Your task to perform on an android device: Search for "bose soundsport free" on costco.com, select the first entry, and add it to the cart. Image 0: 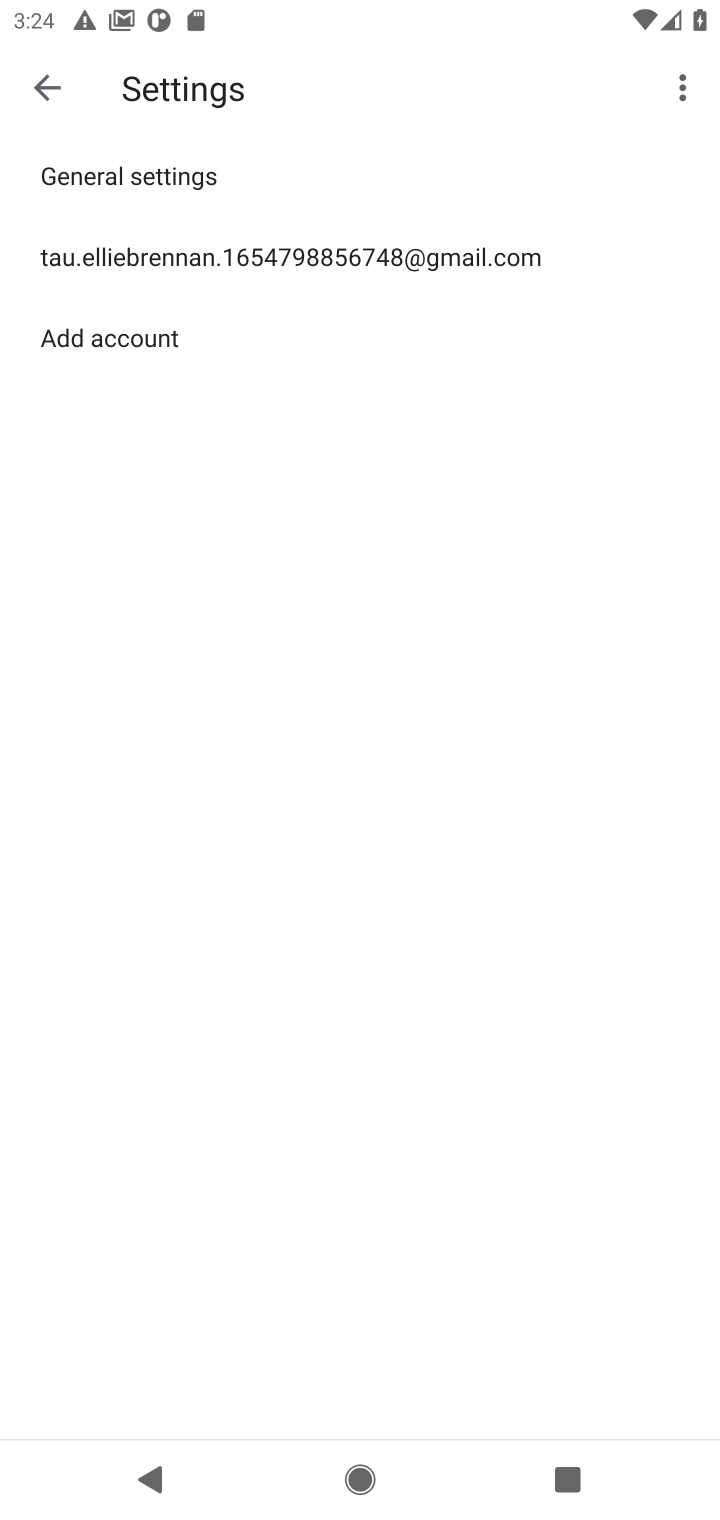
Step 0: press home button
Your task to perform on an android device: Search for "bose soundsport free" on costco.com, select the first entry, and add it to the cart. Image 1: 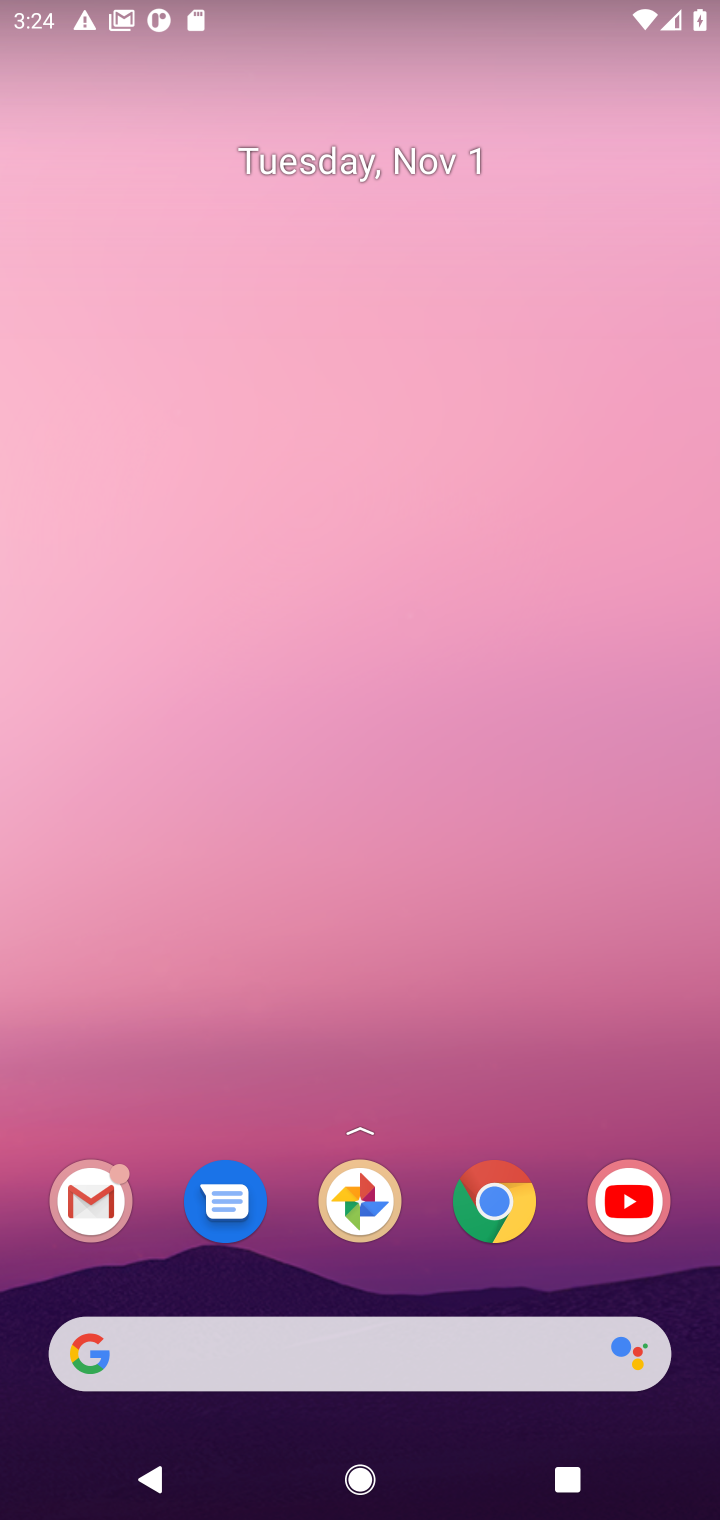
Step 1: click (280, 135)
Your task to perform on an android device: Search for "bose soundsport free" on costco.com, select the first entry, and add it to the cart. Image 2: 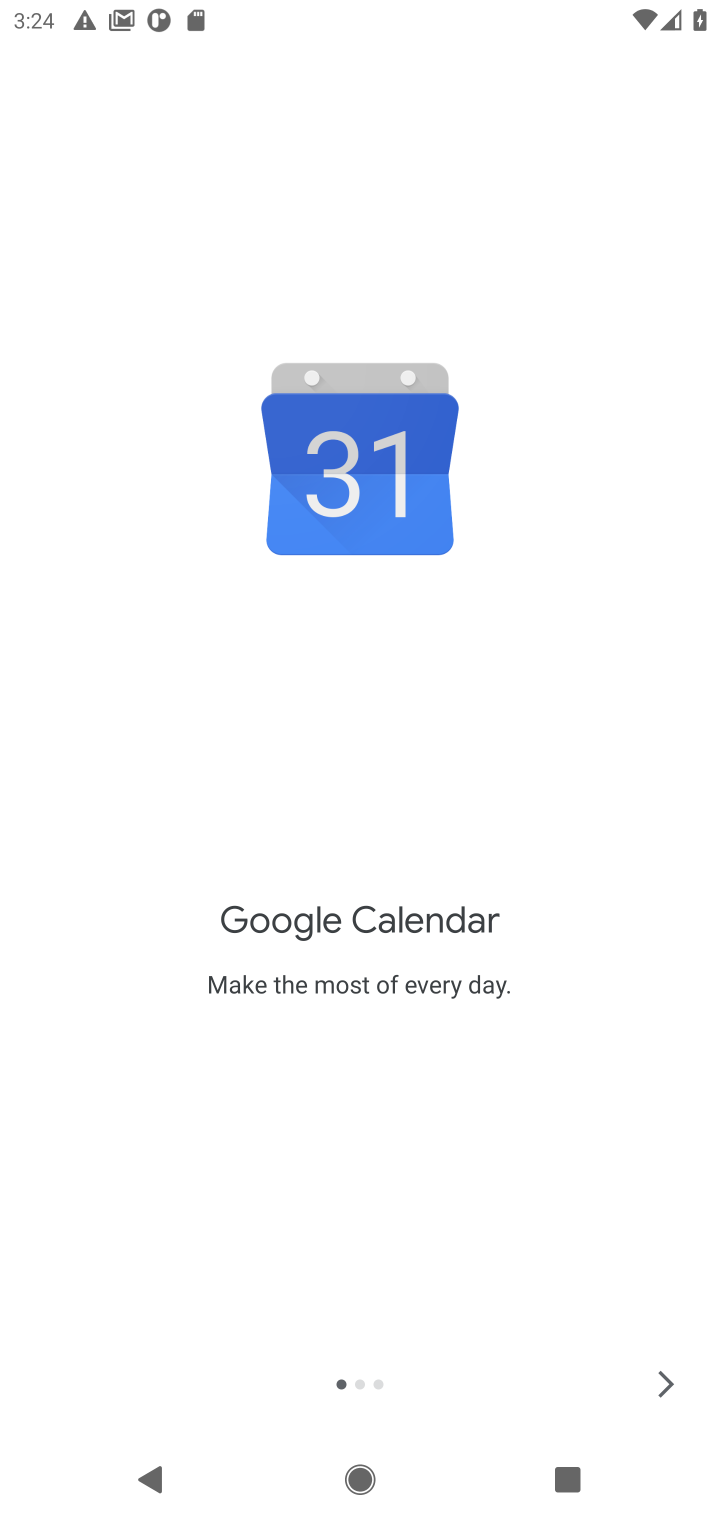
Step 2: press home button
Your task to perform on an android device: Search for "bose soundsport free" on costco.com, select the first entry, and add it to the cart. Image 3: 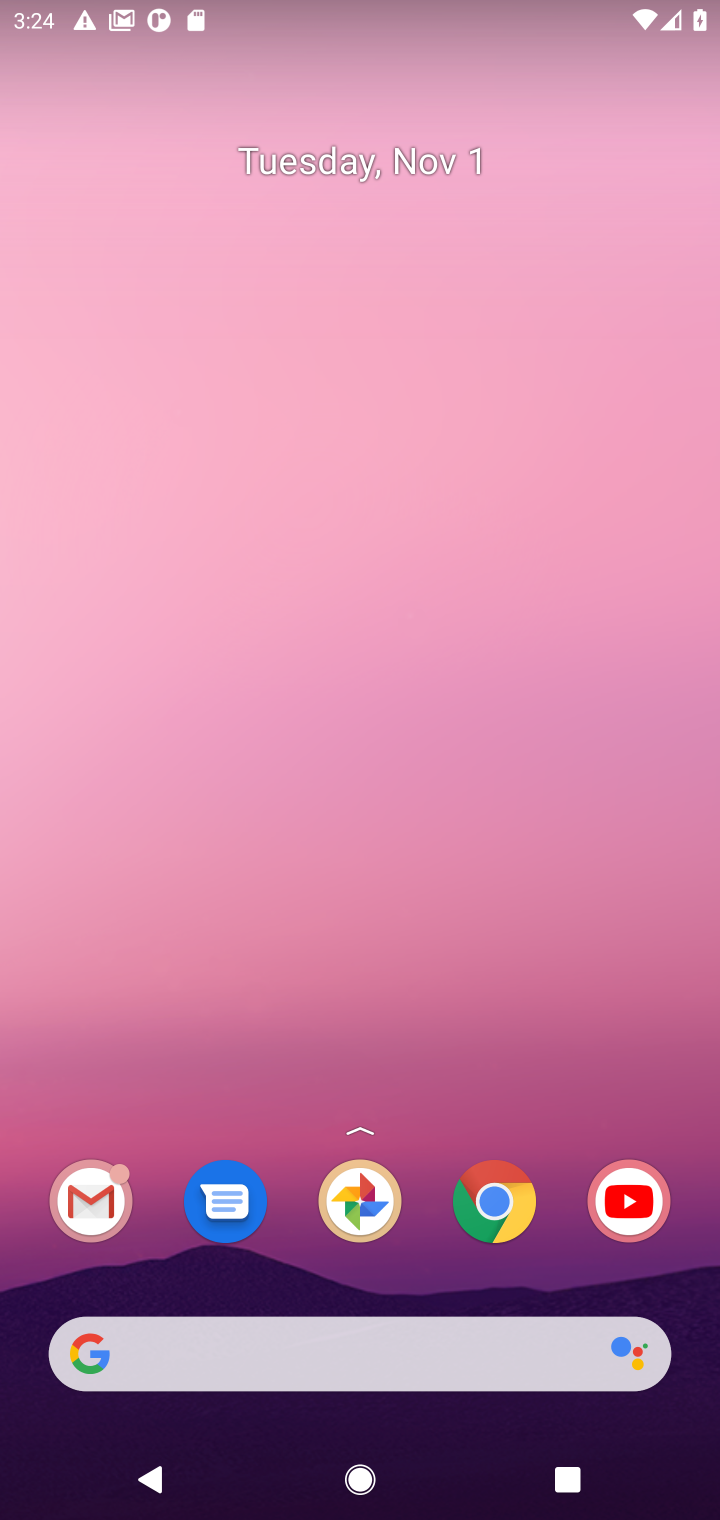
Step 3: drag from (270, 1292) to (291, 666)
Your task to perform on an android device: Search for "bose soundsport free" on costco.com, select the first entry, and add it to the cart. Image 4: 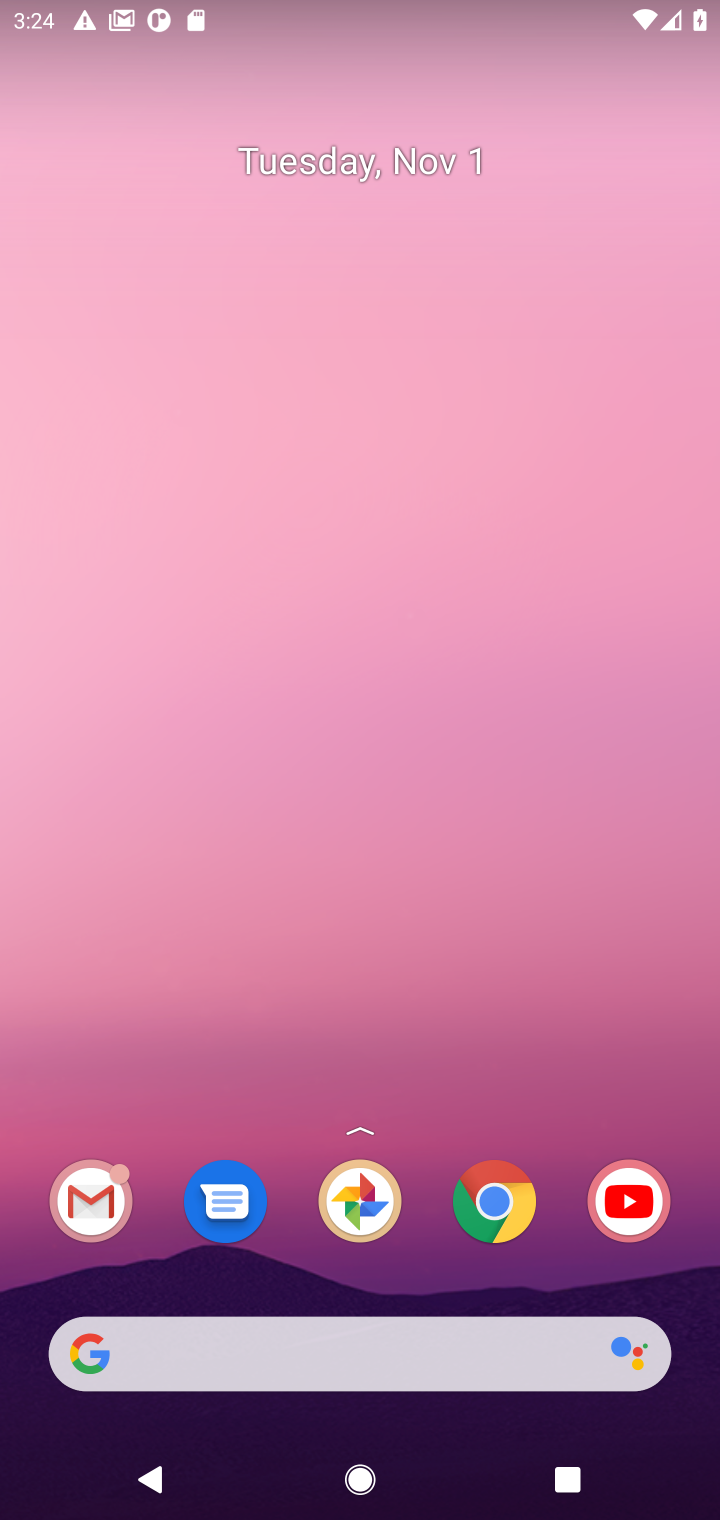
Step 4: drag from (270, 1229) to (336, 66)
Your task to perform on an android device: Search for "bose soundsport free" on costco.com, select the first entry, and add it to the cart. Image 5: 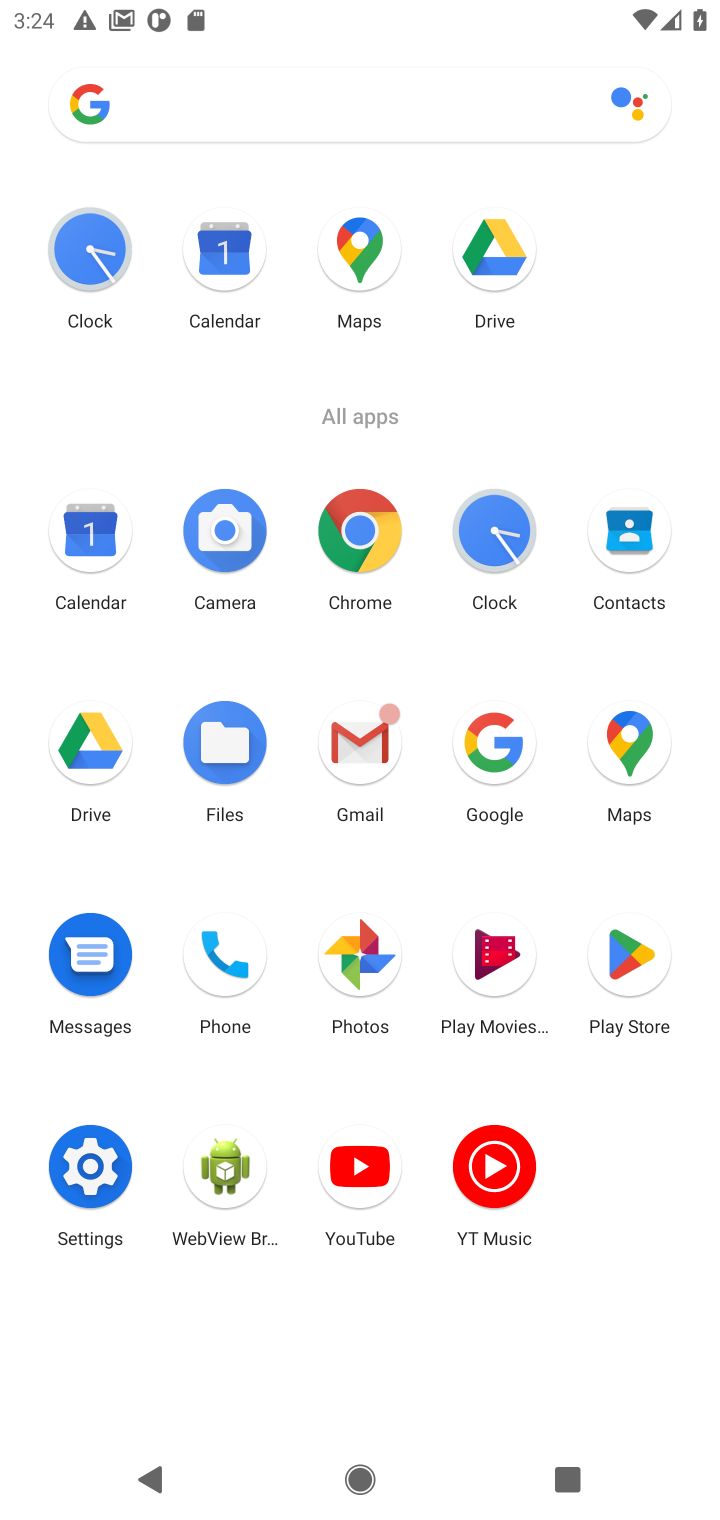
Step 5: click (495, 771)
Your task to perform on an android device: Search for "bose soundsport free" on costco.com, select the first entry, and add it to the cart. Image 6: 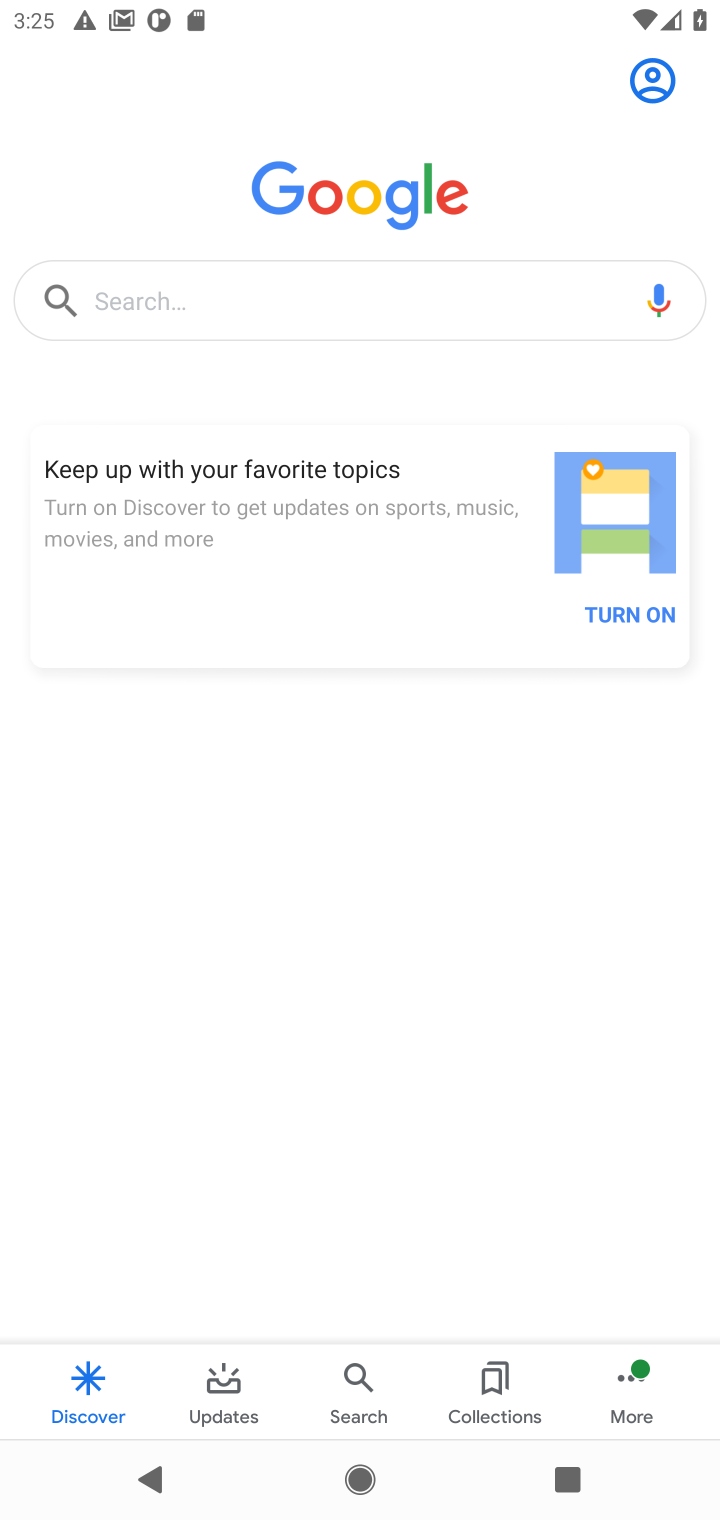
Step 6: click (241, 289)
Your task to perform on an android device: Search for "bose soundsport free" on costco.com, select the first entry, and add it to the cart. Image 7: 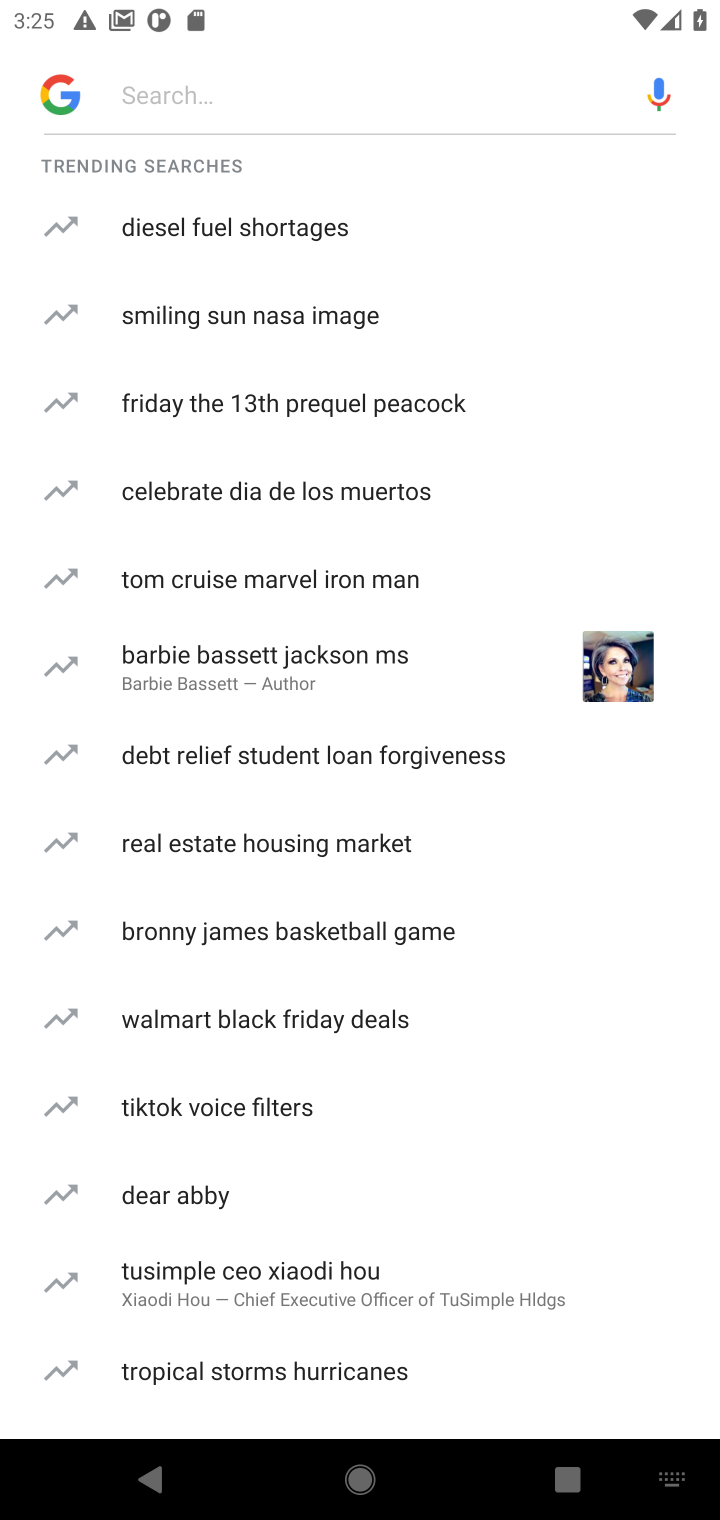
Step 7: type "costco "
Your task to perform on an android device: Search for "bose soundsport free" on costco.com, select the first entry, and add it to the cart. Image 8: 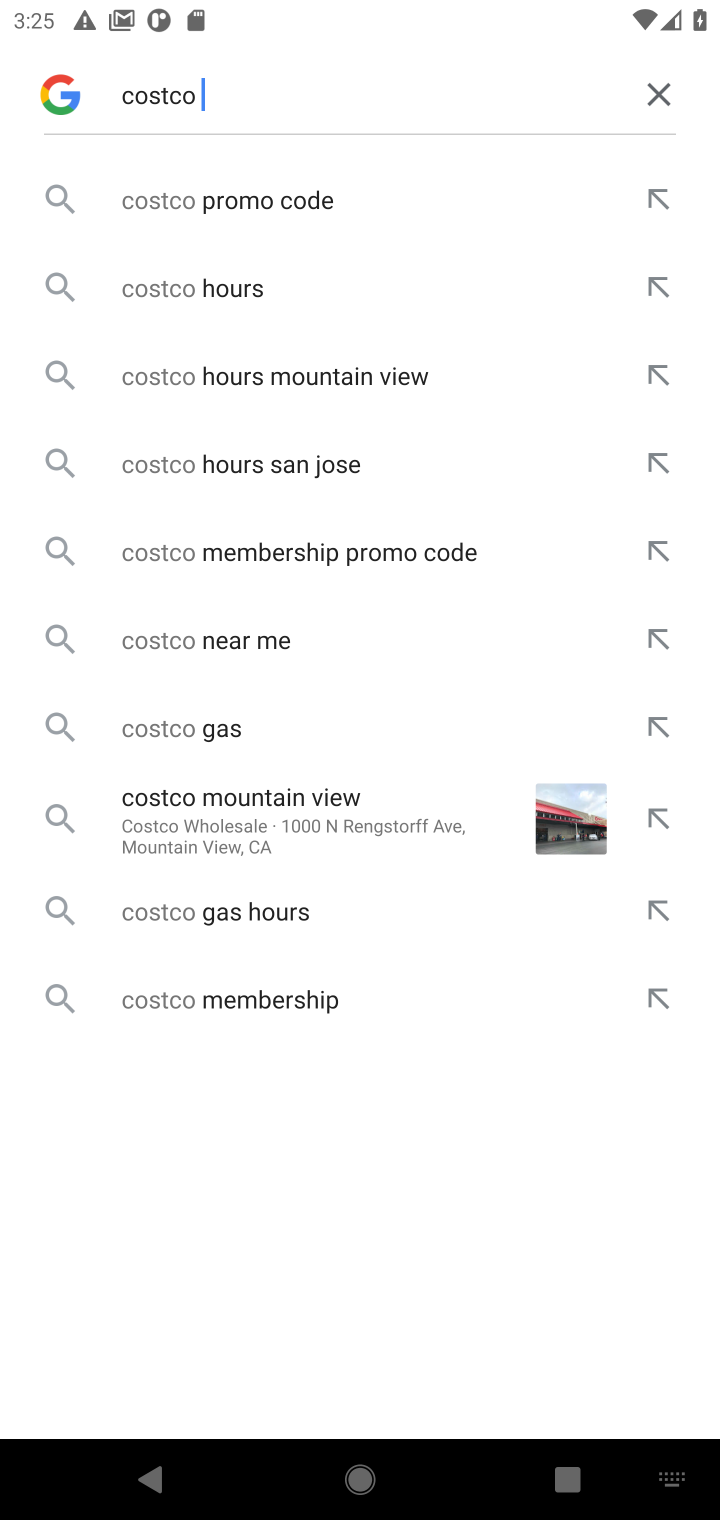
Step 8: click (151, 637)
Your task to perform on an android device: Search for "bose soundsport free" on costco.com, select the first entry, and add it to the cart. Image 9: 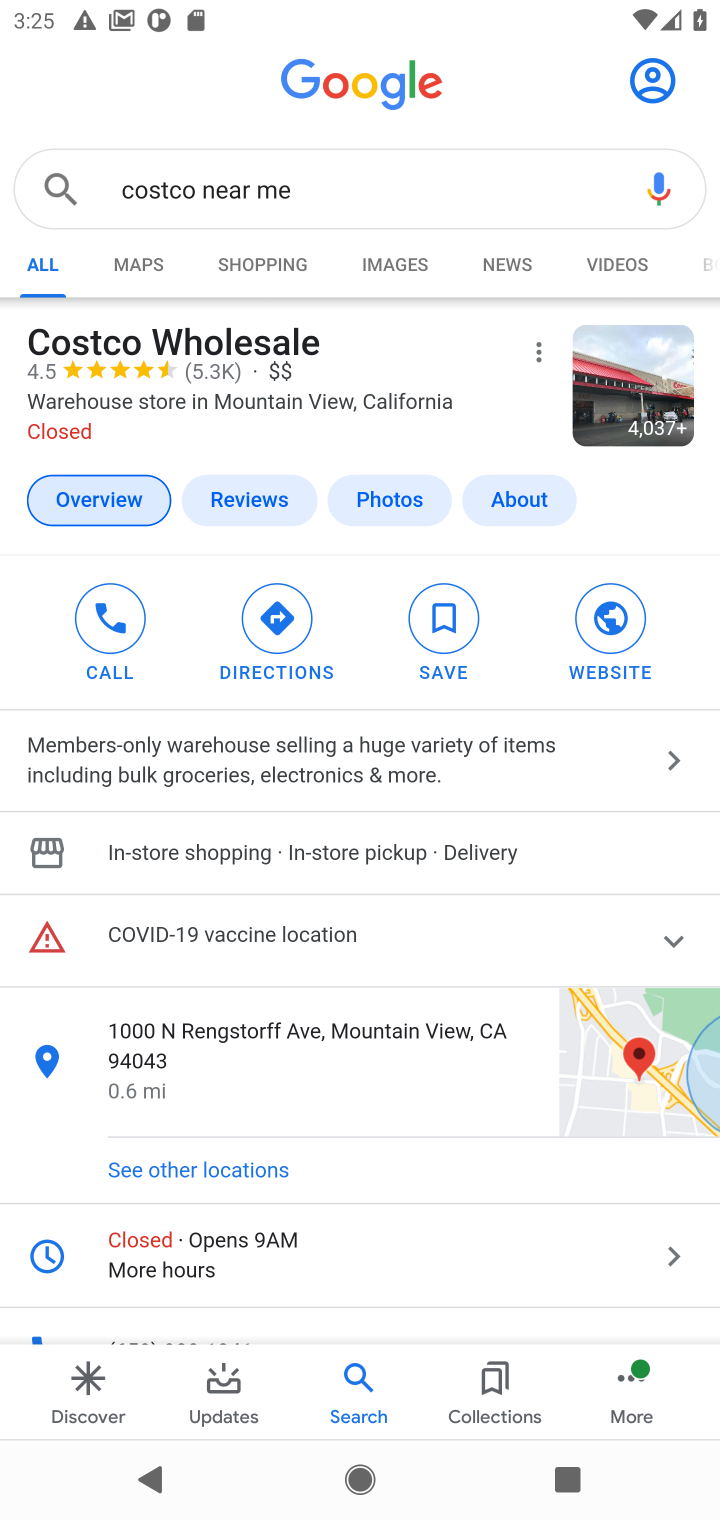
Step 9: drag from (169, 1173) to (301, 476)
Your task to perform on an android device: Search for "bose soundsport free" on costco.com, select the first entry, and add it to the cart. Image 10: 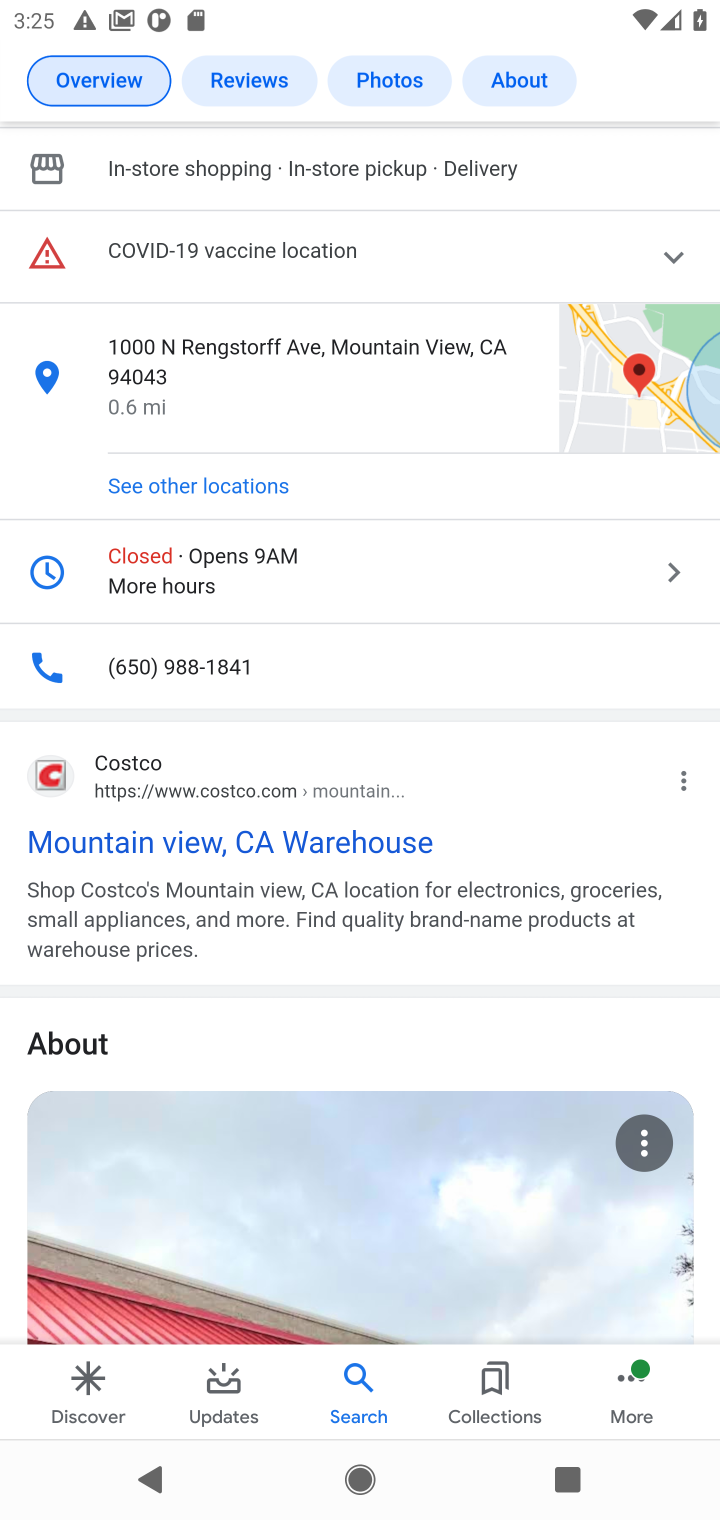
Step 10: drag from (264, 1288) to (264, 765)
Your task to perform on an android device: Search for "bose soundsport free" on costco.com, select the first entry, and add it to the cart. Image 11: 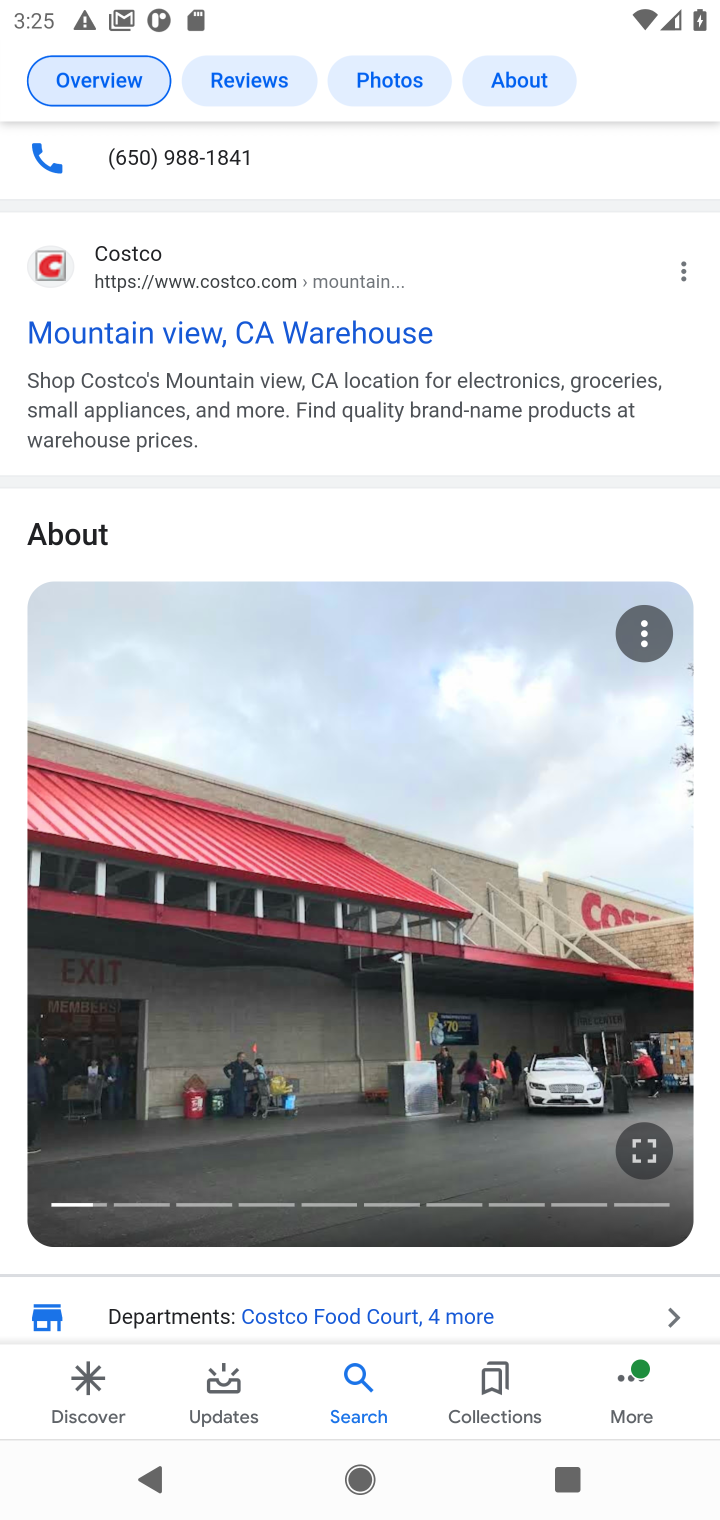
Step 11: click (38, 337)
Your task to perform on an android device: Search for "bose soundsport free" on costco.com, select the first entry, and add it to the cart. Image 12: 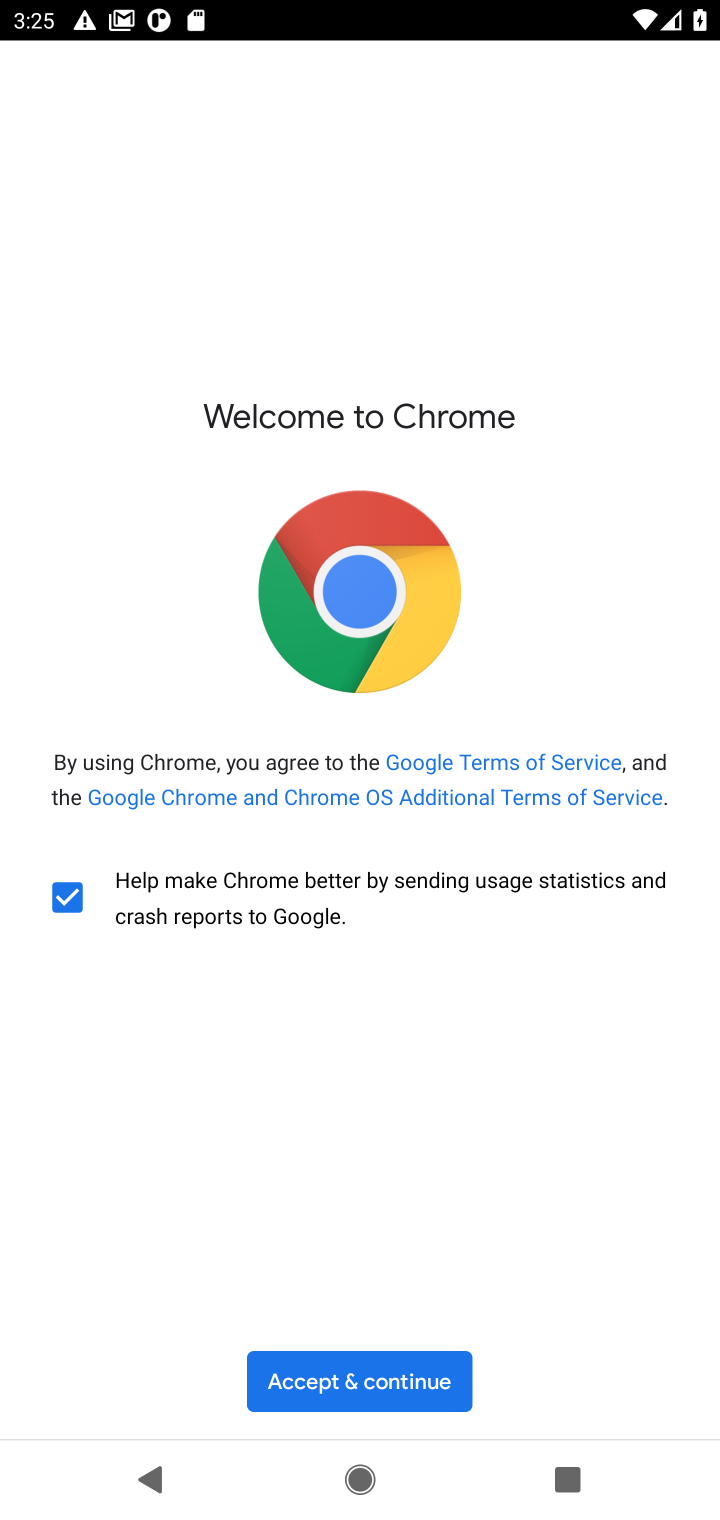
Step 12: click (325, 1373)
Your task to perform on an android device: Search for "bose soundsport free" on costco.com, select the first entry, and add it to the cart. Image 13: 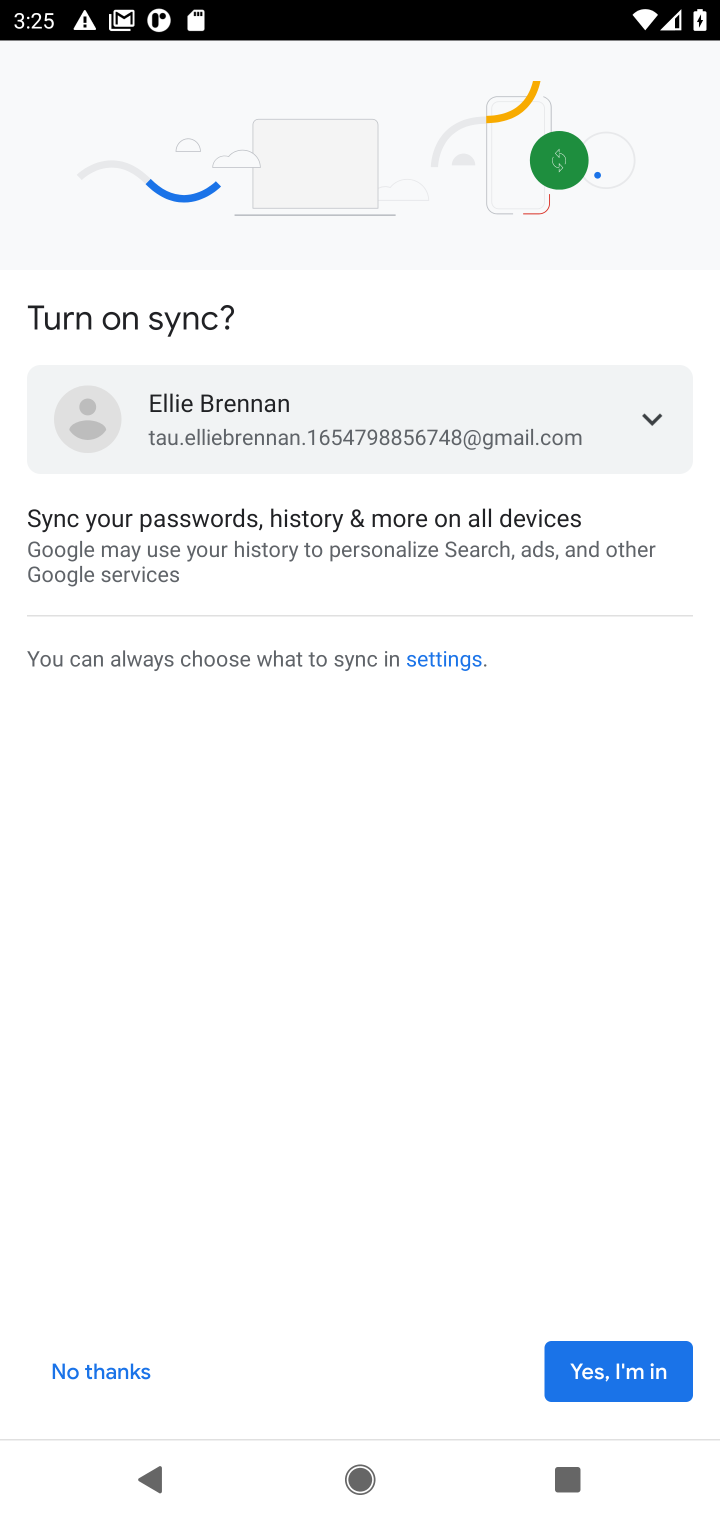
Step 13: click (94, 1358)
Your task to perform on an android device: Search for "bose soundsport free" on costco.com, select the first entry, and add it to the cart. Image 14: 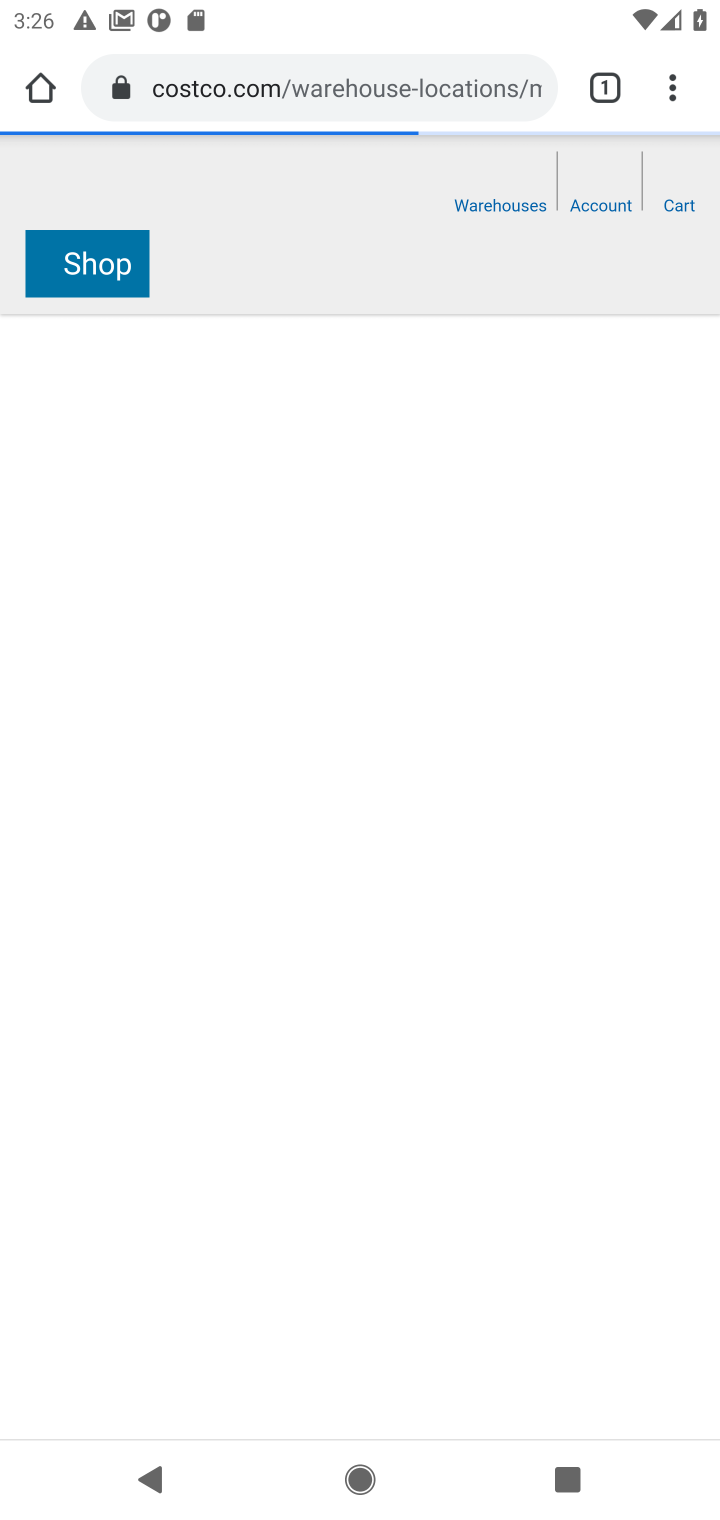
Step 14: click (60, 1377)
Your task to perform on an android device: Search for "bose soundsport free" on costco.com, select the first entry, and add it to the cart. Image 15: 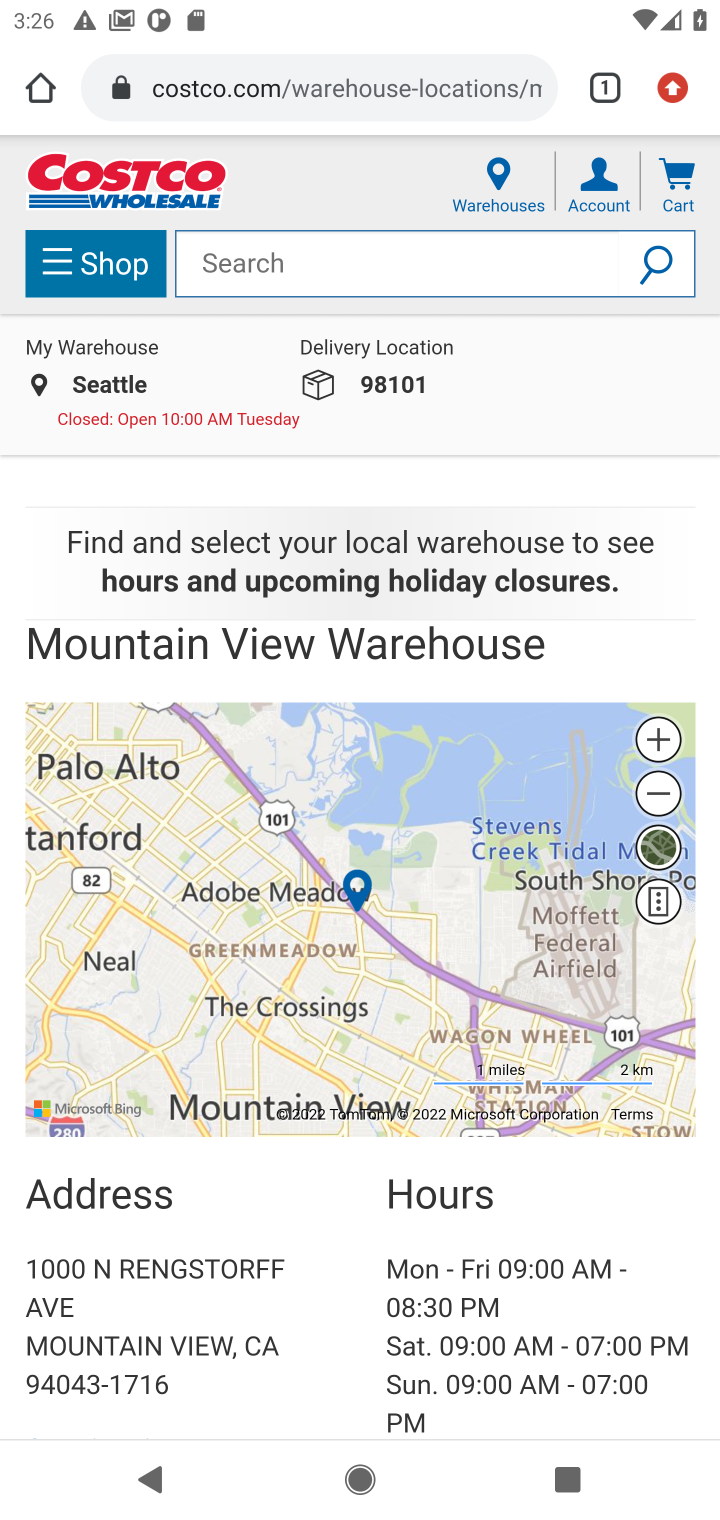
Step 15: click (390, 248)
Your task to perform on an android device: Search for "bose soundsport free" on costco.com, select the first entry, and add it to the cart. Image 16: 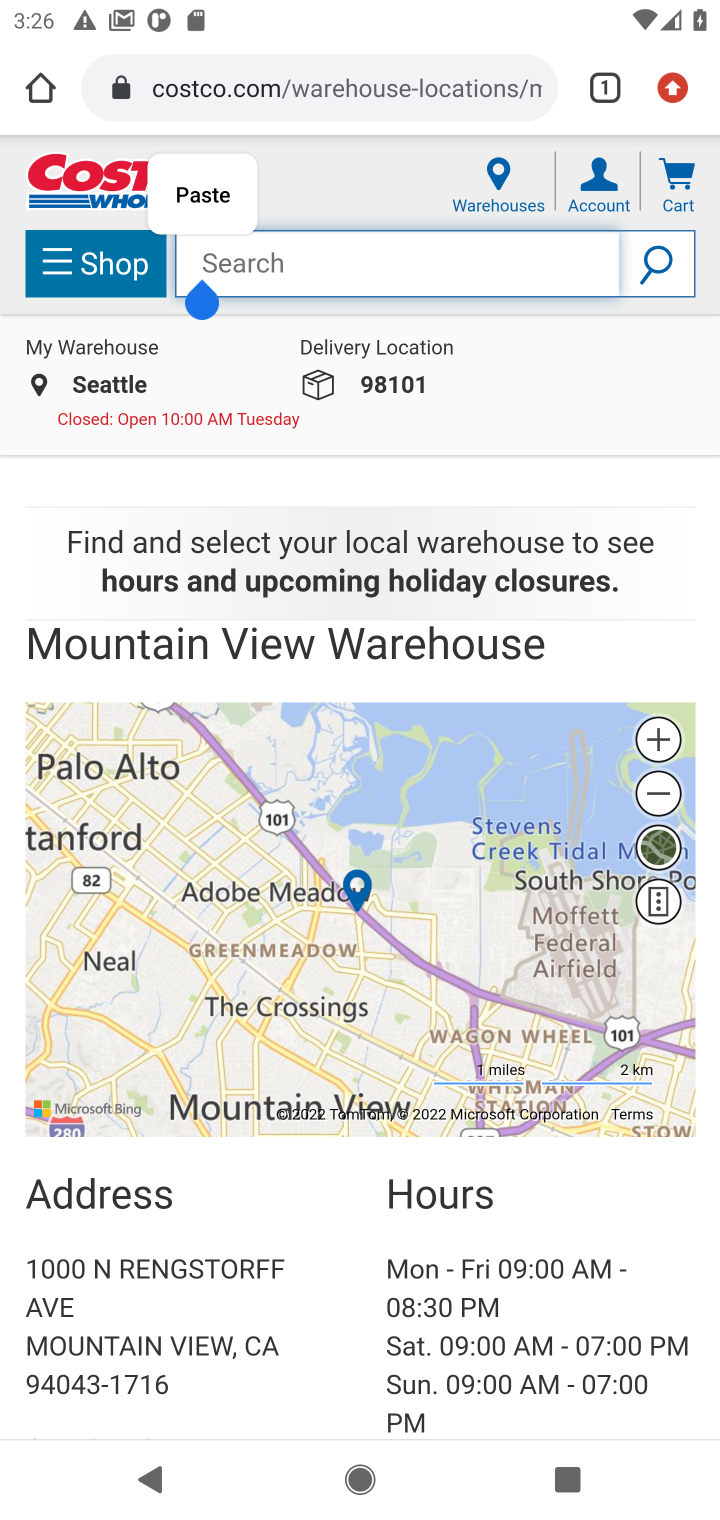
Step 16: type "bose soundsport  "
Your task to perform on an android device: Search for "bose soundsport free" on costco.com, select the first entry, and add it to the cart. Image 17: 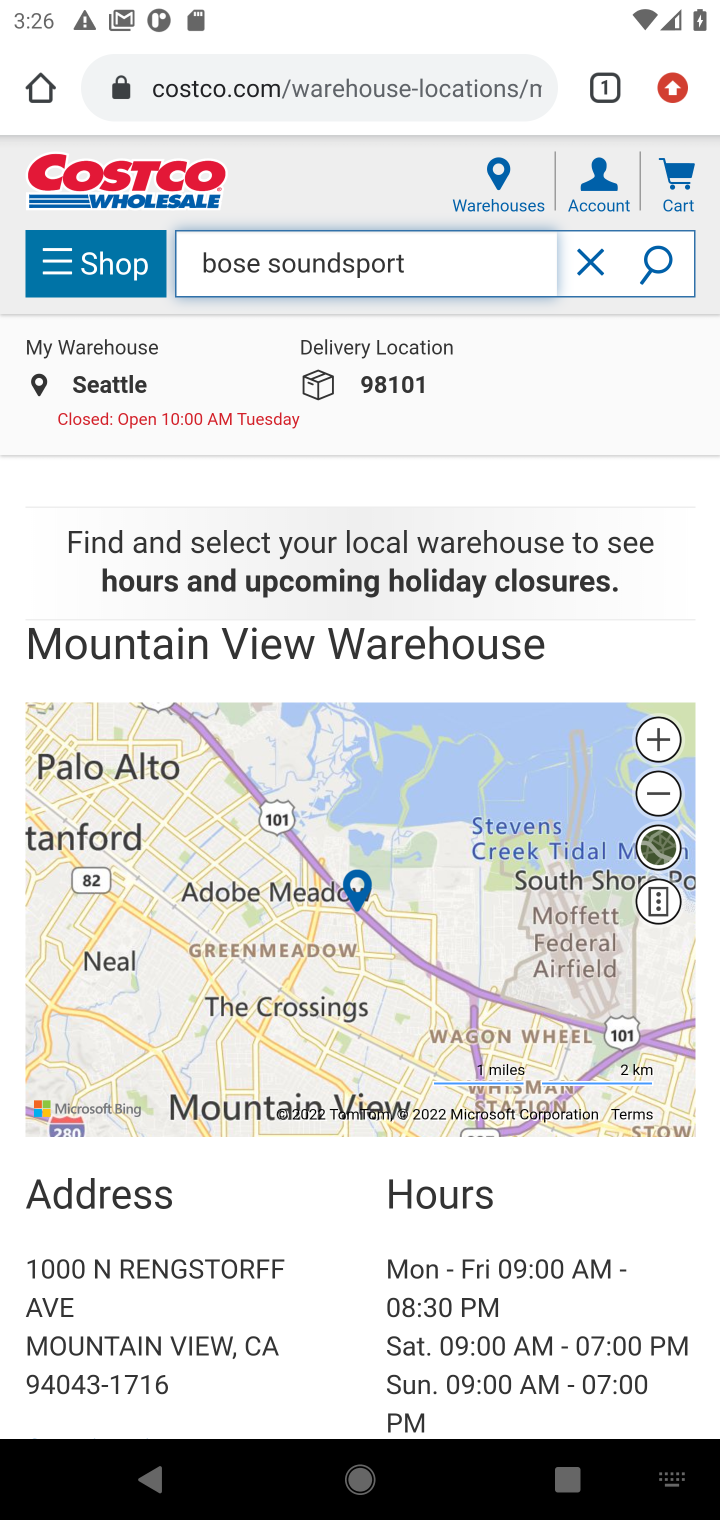
Step 17: click (655, 264)
Your task to perform on an android device: Search for "bose soundsport free" on costco.com, select the first entry, and add it to the cart. Image 18: 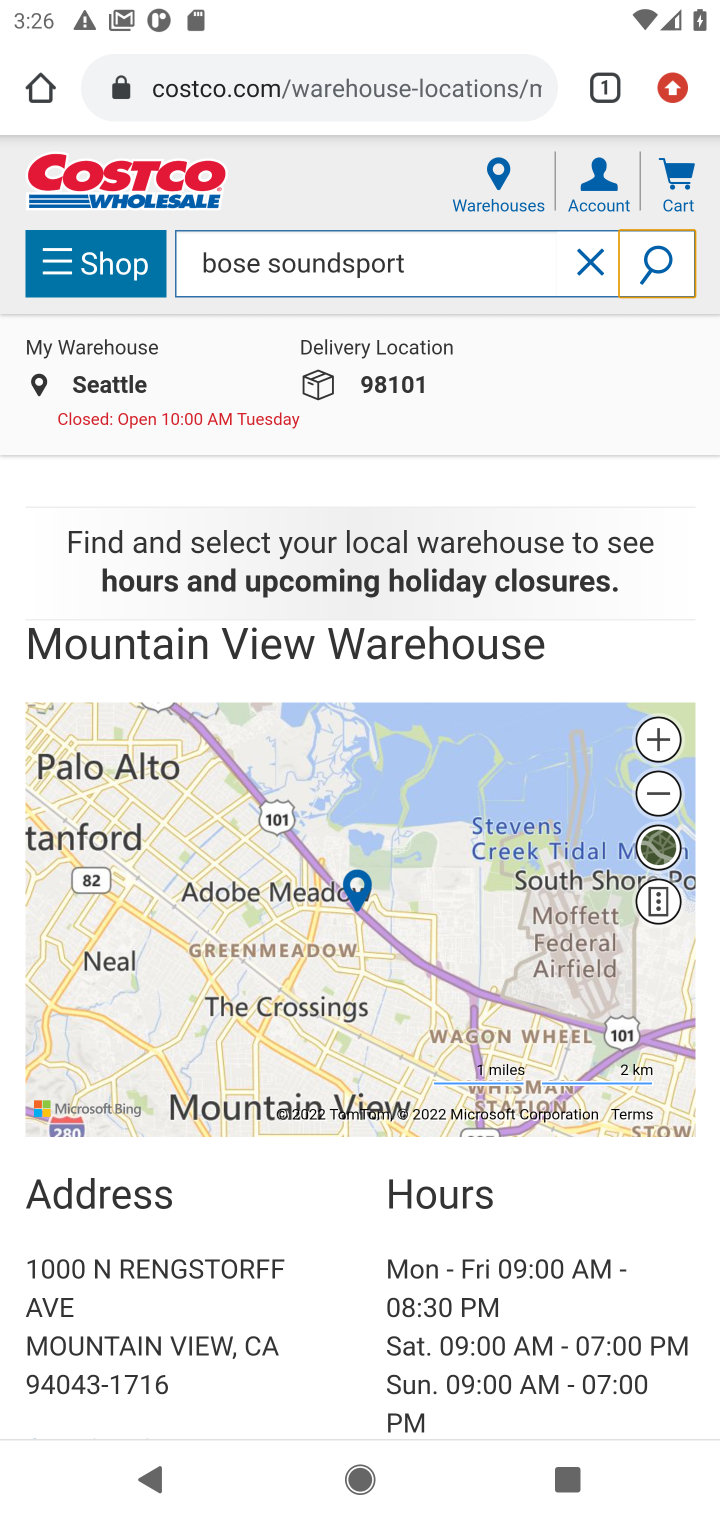
Step 18: click (626, 273)
Your task to perform on an android device: Search for "bose soundsport free" on costco.com, select the first entry, and add it to the cart. Image 19: 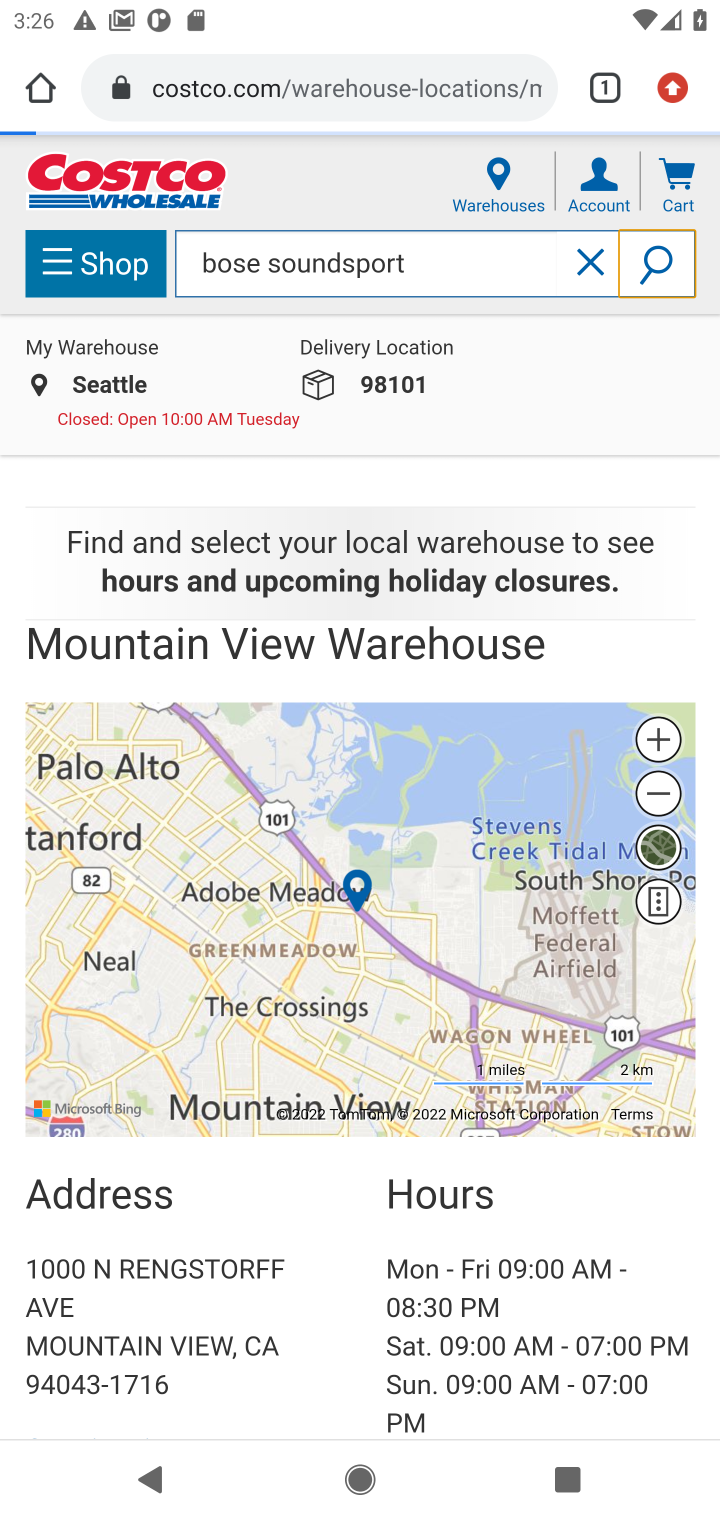
Step 19: click (630, 264)
Your task to perform on an android device: Search for "bose soundsport free" on costco.com, select the first entry, and add it to the cart. Image 20: 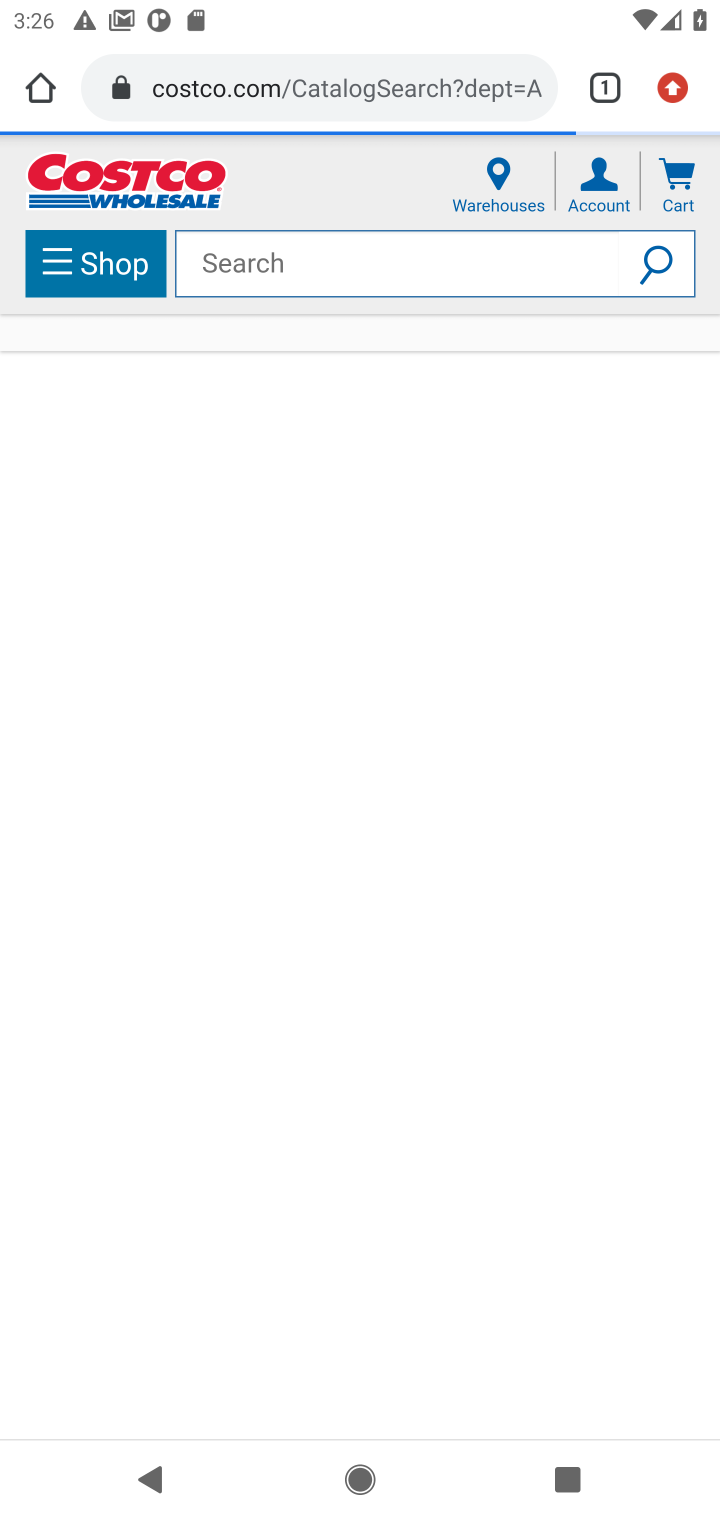
Step 20: click (630, 264)
Your task to perform on an android device: Search for "bose soundsport free" on costco.com, select the first entry, and add it to the cart. Image 21: 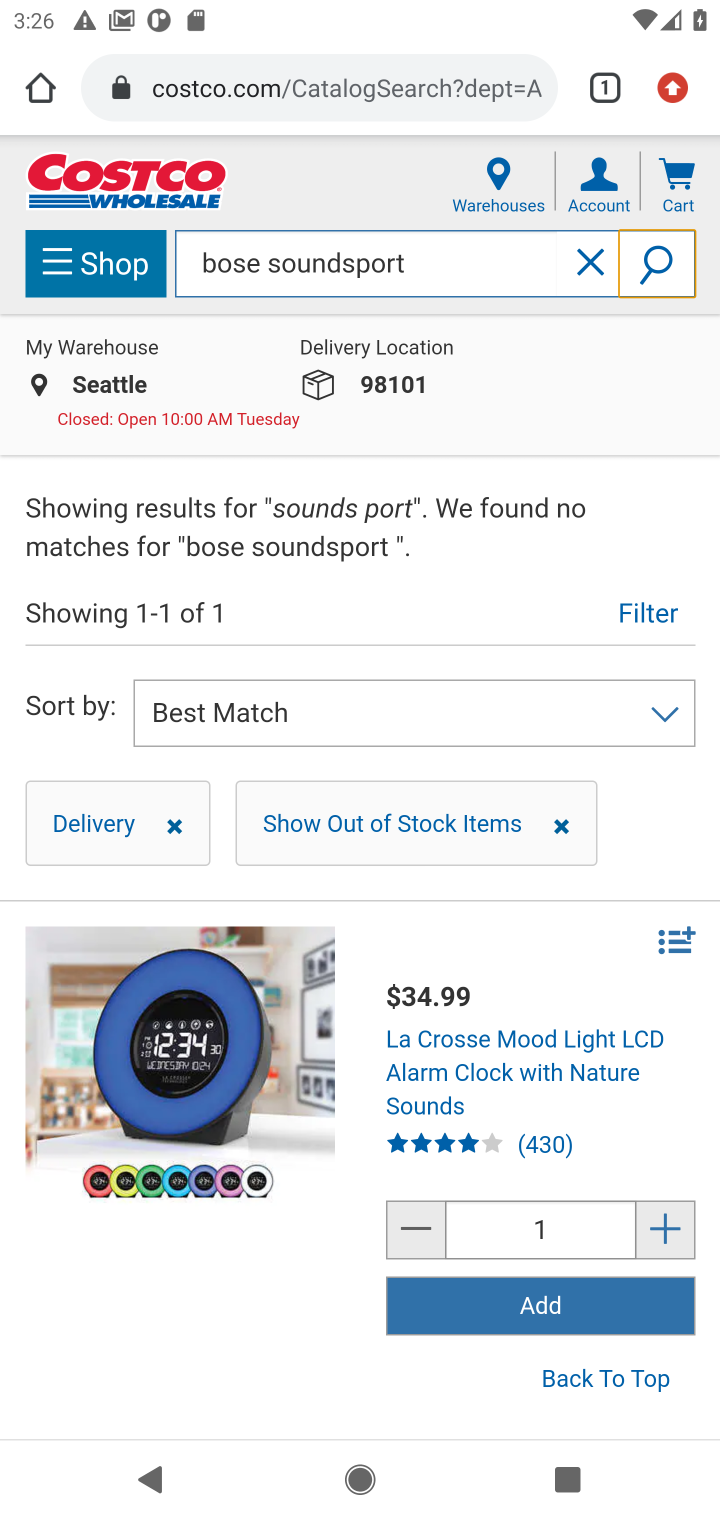
Step 21: click (487, 1313)
Your task to perform on an android device: Search for "bose soundsport free" on costco.com, select the first entry, and add it to the cart. Image 22: 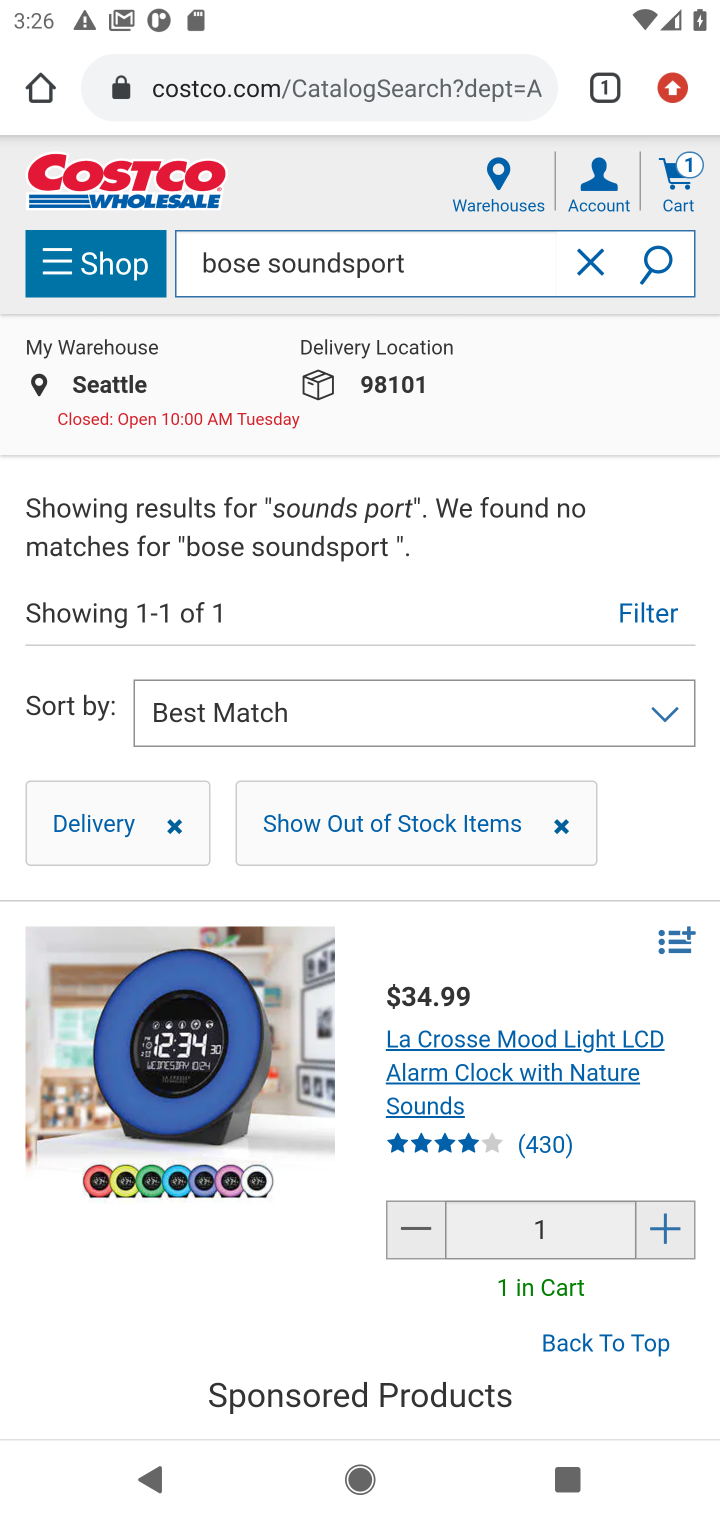
Step 22: task complete